Your task to perform on an android device: Search for Mexican restaurants on Maps Image 0: 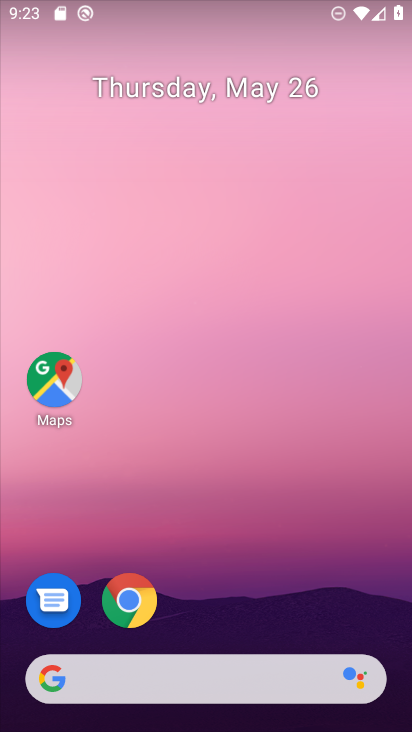
Step 0: click (70, 382)
Your task to perform on an android device: Search for Mexican restaurants on Maps Image 1: 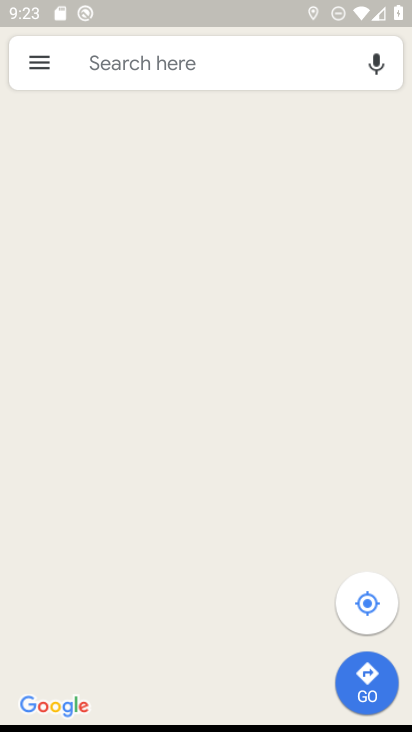
Step 1: click (176, 65)
Your task to perform on an android device: Search for Mexican restaurants on Maps Image 2: 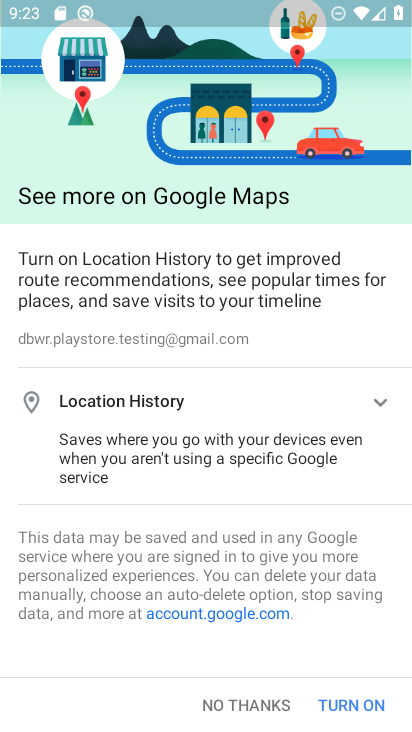
Step 2: click (362, 708)
Your task to perform on an android device: Search for Mexican restaurants on Maps Image 3: 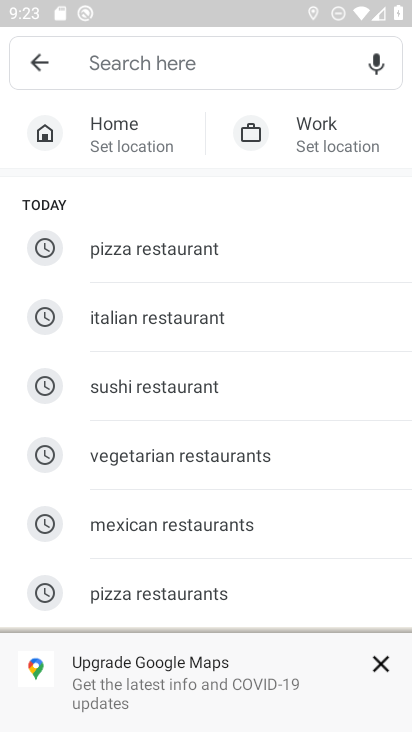
Step 3: click (107, 524)
Your task to perform on an android device: Search for Mexican restaurants on Maps Image 4: 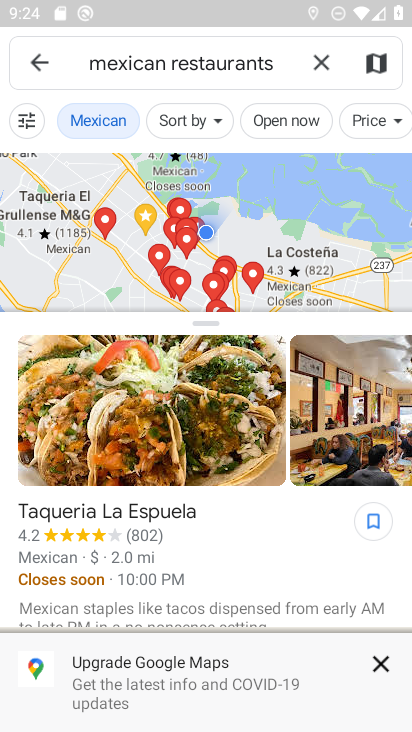
Step 4: task complete